Your task to perform on an android device: turn on priority inbox in the gmail app Image 0: 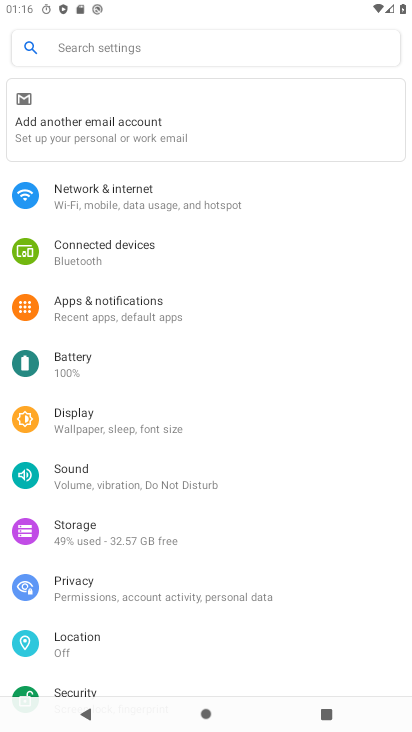
Step 0: press home button
Your task to perform on an android device: turn on priority inbox in the gmail app Image 1: 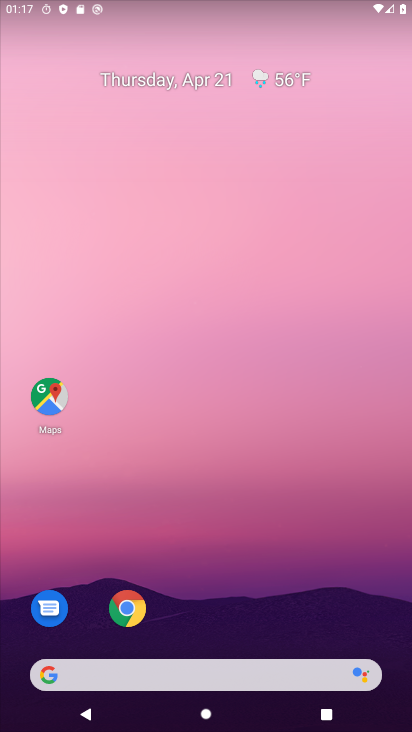
Step 1: drag from (225, 610) to (246, 41)
Your task to perform on an android device: turn on priority inbox in the gmail app Image 2: 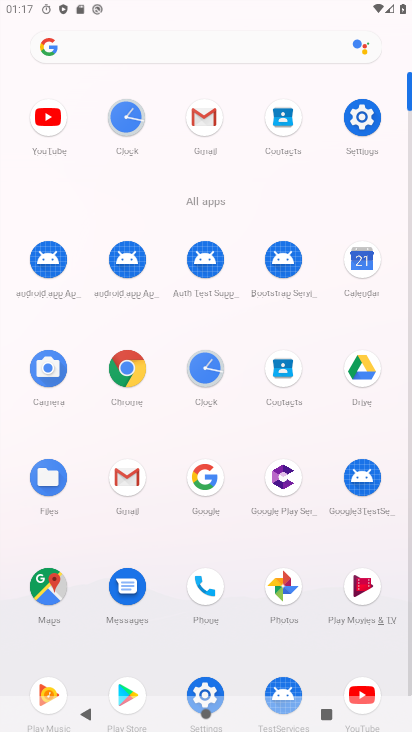
Step 2: click (195, 122)
Your task to perform on an android device: turn on priority inbox in the gmail app Image 3: 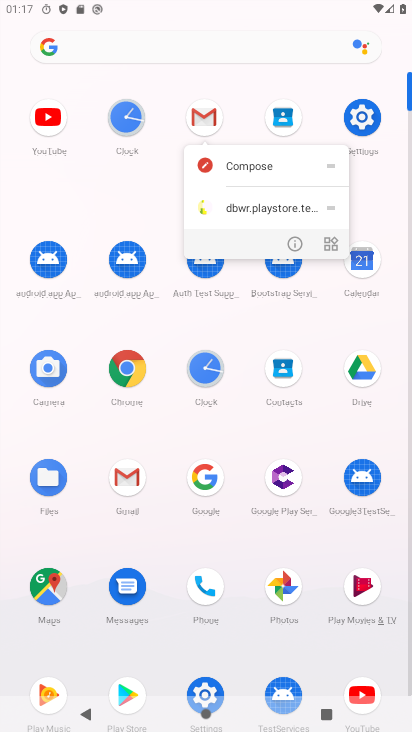
Step 3: click (206, 114)
Your task to perform on an android device: turn on priority inbox in the gmail app Image 4: 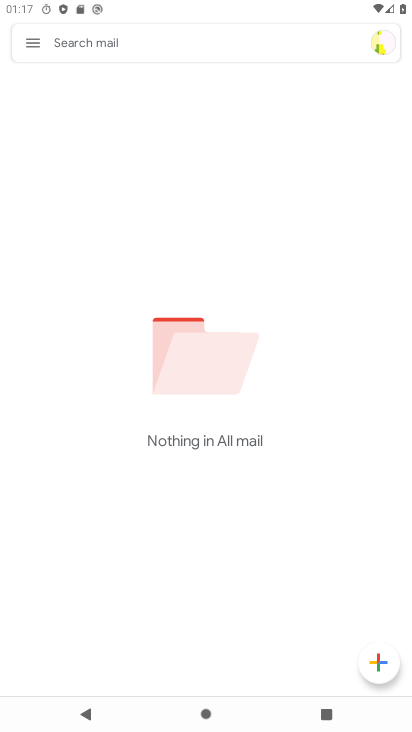
Step 4: click (32, 37)
Your task to perform on an android device: turn on priority inbox in the gmail app Image 5: 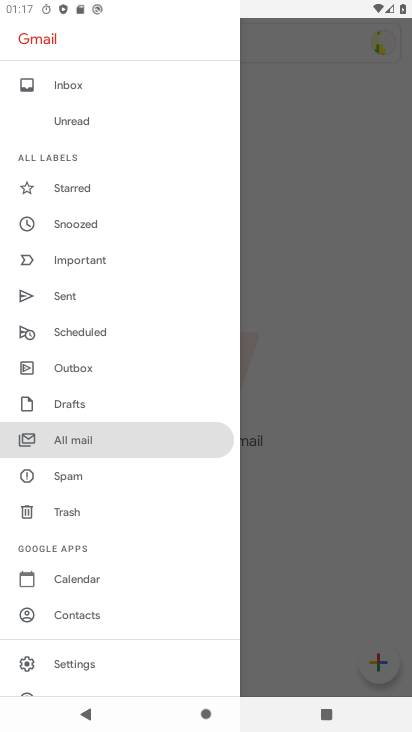
Step 5: click (73, 651)
Your task to perform on an android device: turn on priority inbox in the gmail app Image 6: 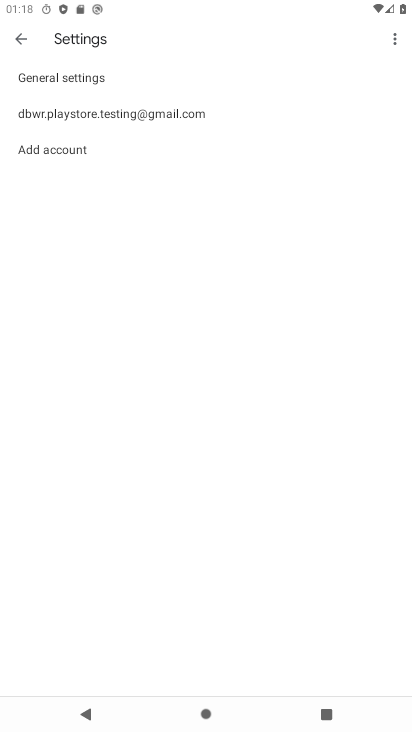
Step 6: click (137, 115)
Your task to perform on an android device: turn on priority inbox in the gmail app Image 7: 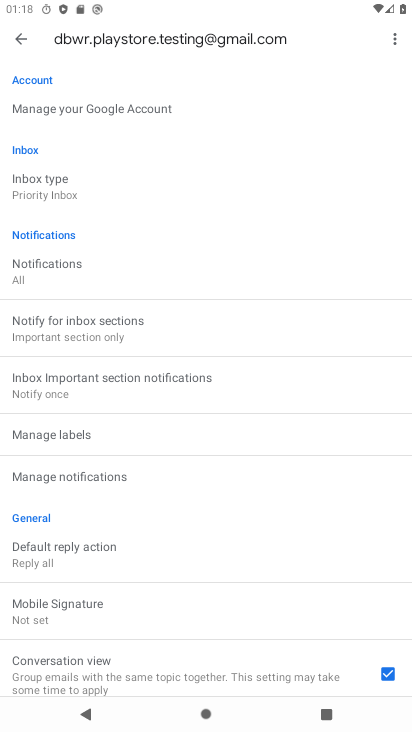
Step 7: task complete